Your task to perform on an android device: Open calendar and show me the third week of next month Image 0: 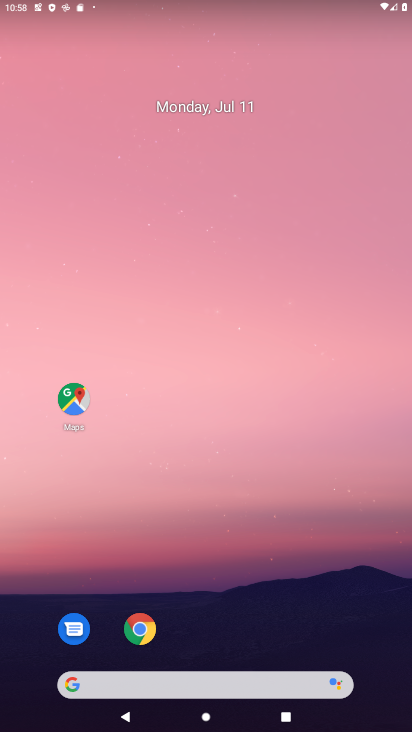
Step 0: drag from (276, 615) to (266, 65)
Your task to perform on an android device: Open calendar and show me the third week of next month Image 1: 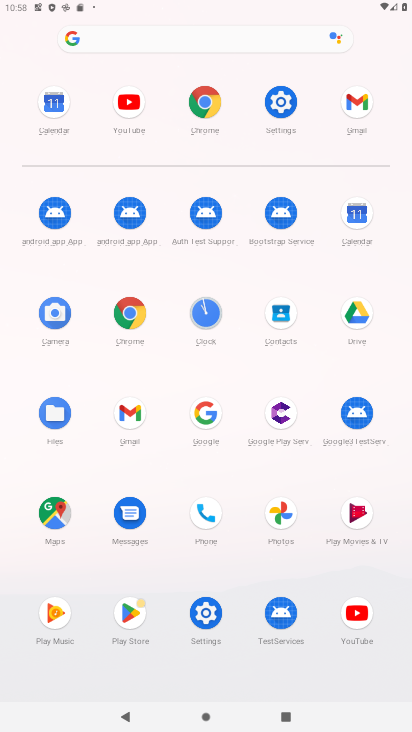
Step 1: click (343, 221)
Your task to perform on an android device: Open calendar and show me the third week of next month Image 2: 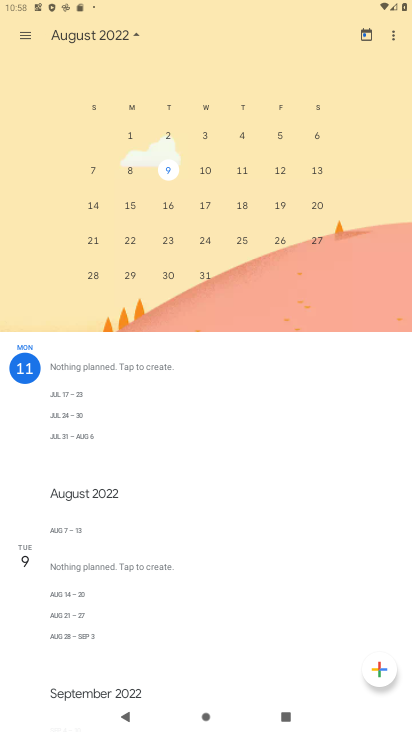
Step 2: task complete